Your task to perform on an android device: Open battery settings Image 0: 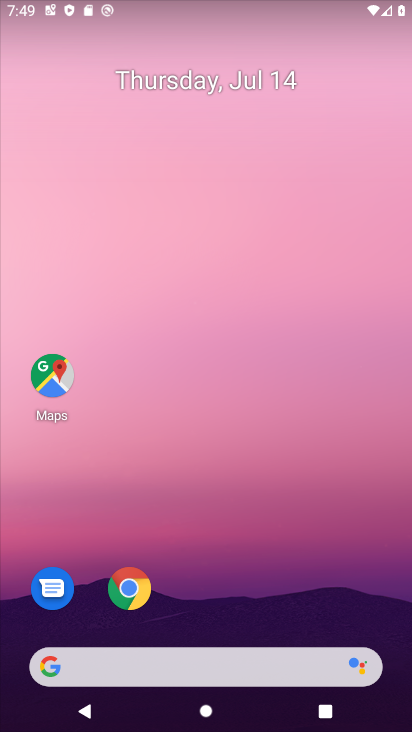
Step 0: drag from (305, 556) to (255, 0)
Your task to perform on an android device: Open battery settings Image 1: 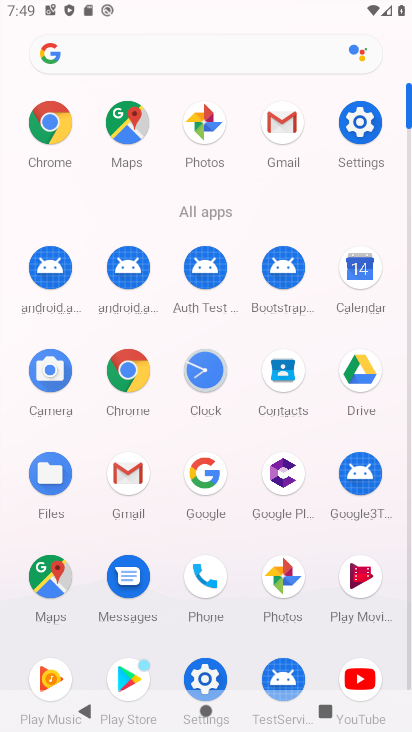
Step 1: click (363, 127)
Your task to perform on an android device: Open battery settings Image 2: 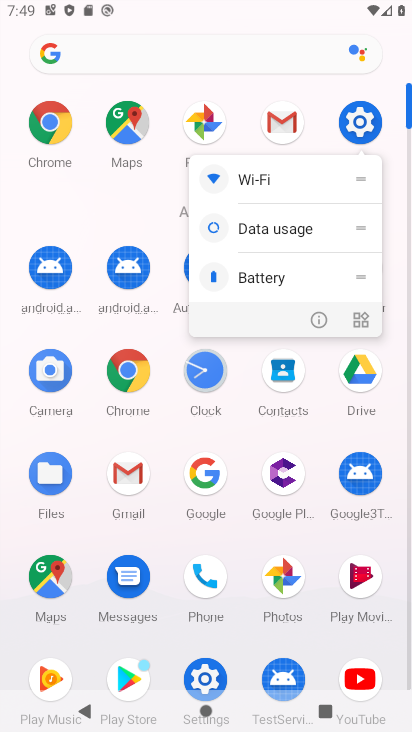
Step 2: click (363, 121)
Your task to perform on an android device: Open battery settings Image 3: 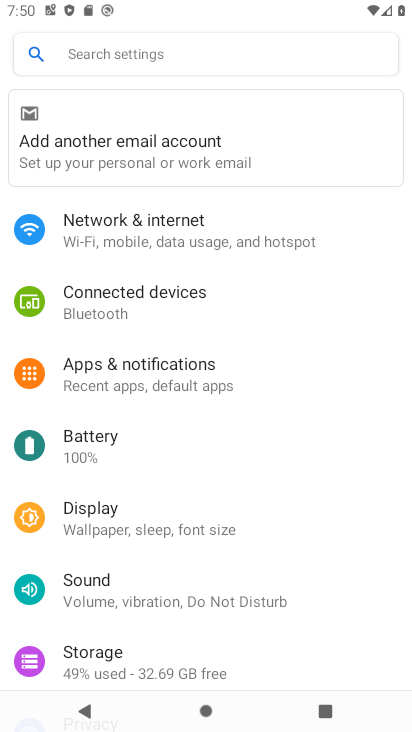
Step 3: click (74, 448)
Your task to perform on an android device: Open battery settings Image 4: 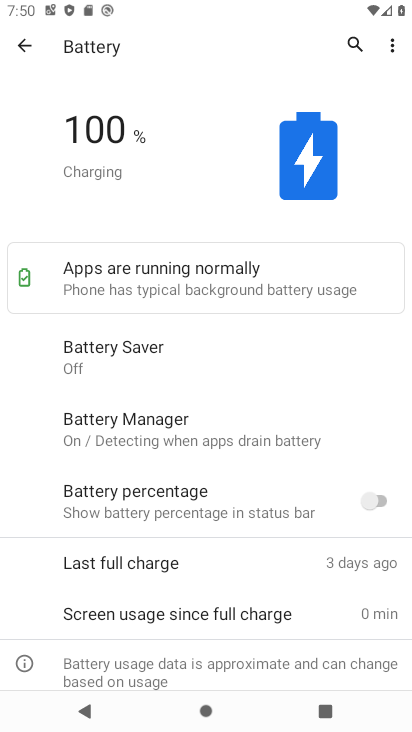
Step 4: task complete